Your task to perform on an android device: Open the web browser Image 0: 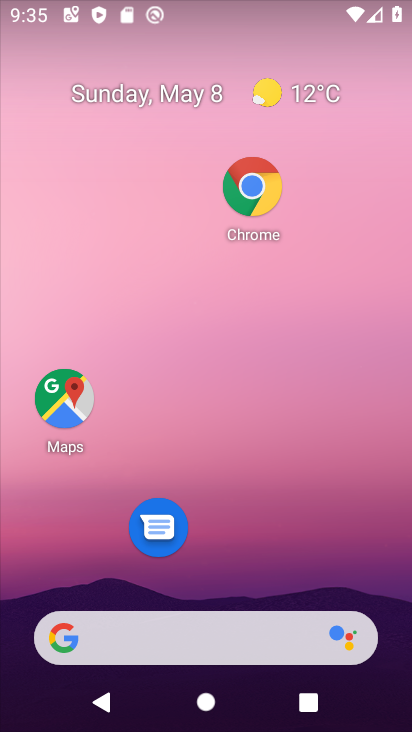
Step 0: drag from (276, 577) to (322, 308)
Your task to perform on an android device: Open the web browser Image 1: 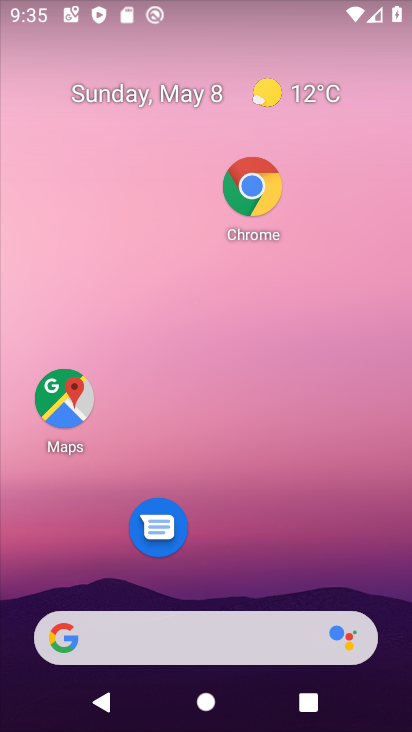
Step 1: drag from (266, 521) to (318, 272)
Your task to perform on an android device: Open the web browser Image 2: 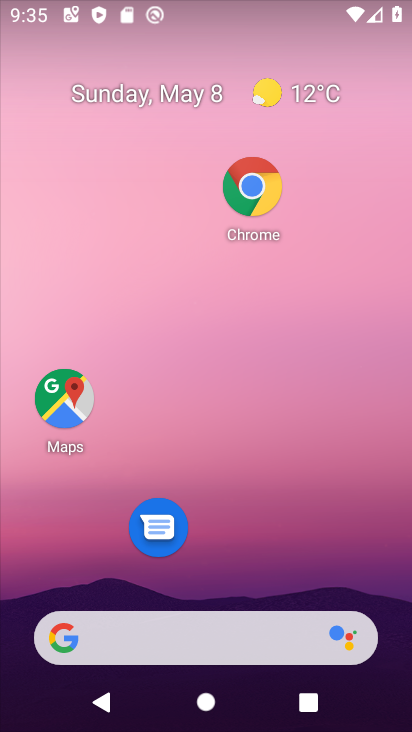
Step 2: drag from (275, 585) to (335, 357)
Your task to perform on an android device: Open the web browser Image 3: 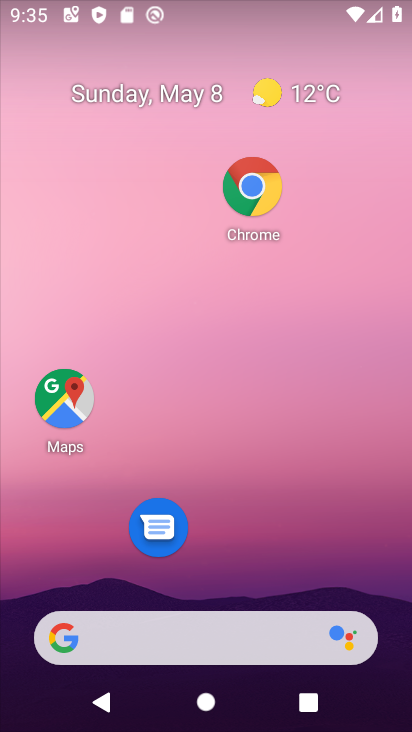
Step 3: drag from (255, 566) to (325, 132)
Your task to perform on an android device: Open the web browser Image 4: 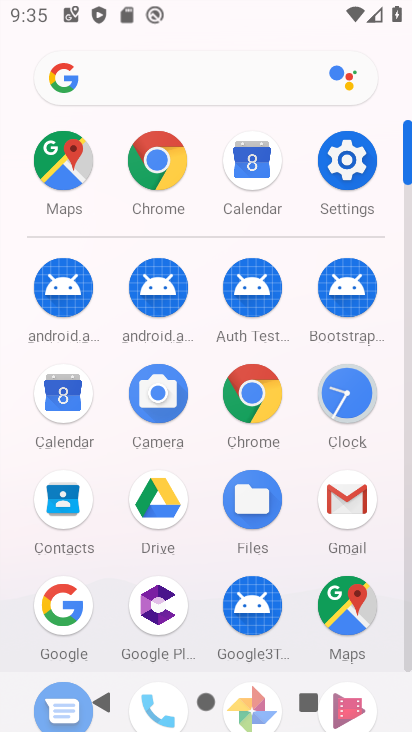
Step 4: click (246, 397)
Your task to perform on an android device: Open the web browser Image 5: 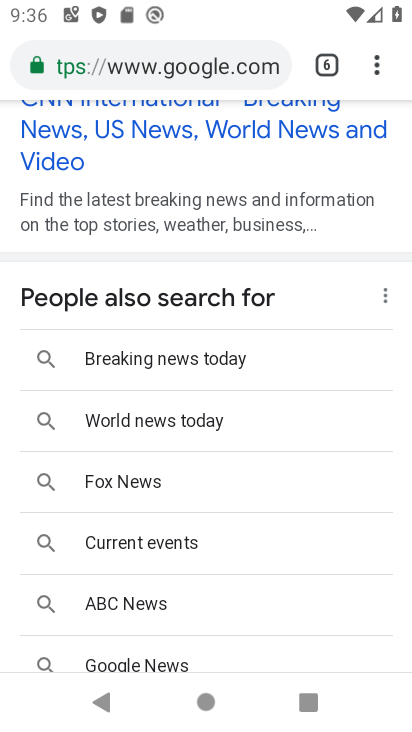
Step 5: task complete